Your task to perform on an android device: turn on improve location accuracy Image 0: 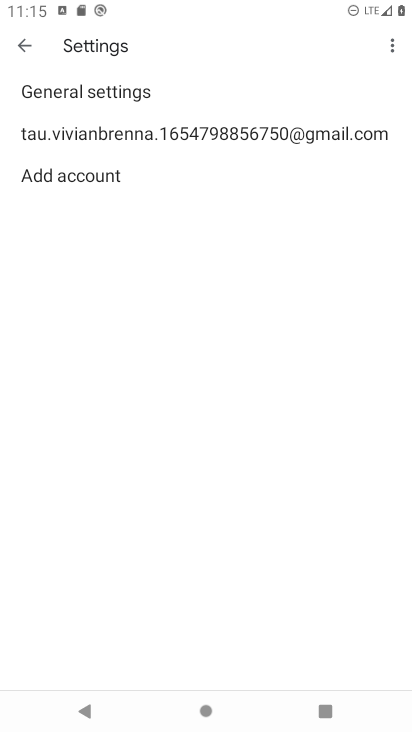
Step 0: press home button
Your task to perform on an android device: turn on improve location accuracy Image 1: 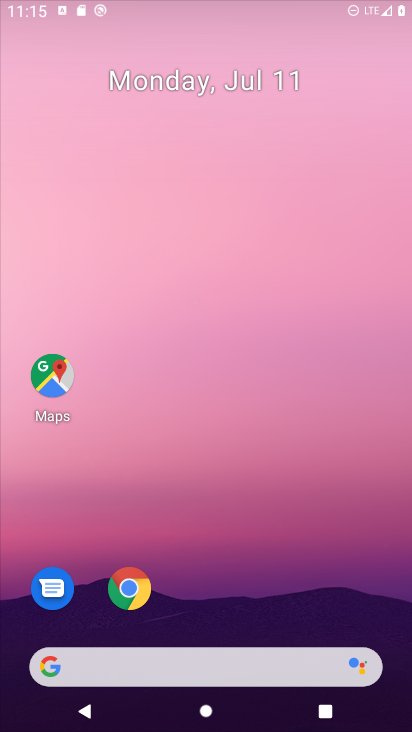
Step 1: drag from (400, 669) to (296, 141)
Your task to perform on an android device: turn on improve location accuracy Image 2: 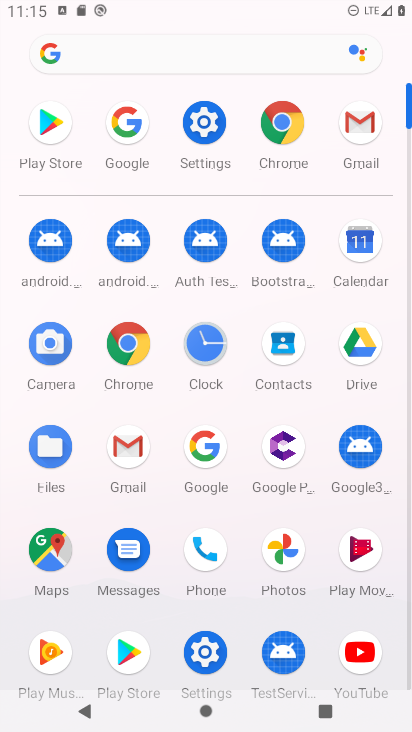
Step 2: click (195, 137)
Your task to perform on an android device: turn on improve location accuracy Image 3: 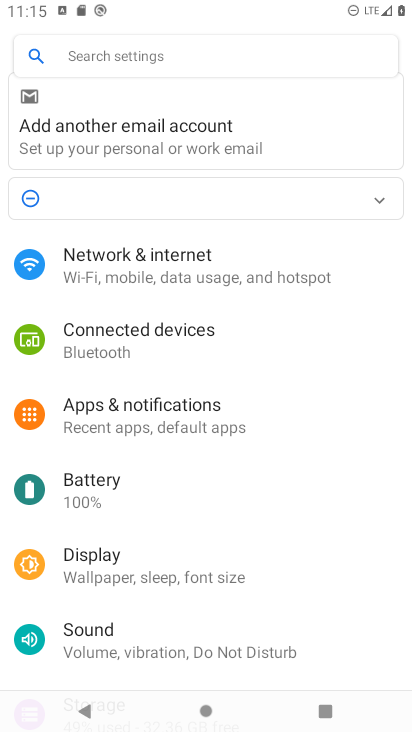
Step 3: drag from (150, 649) to (180, 94)
Your task to perform on an android device: turn on improve location accuracy Image 4: 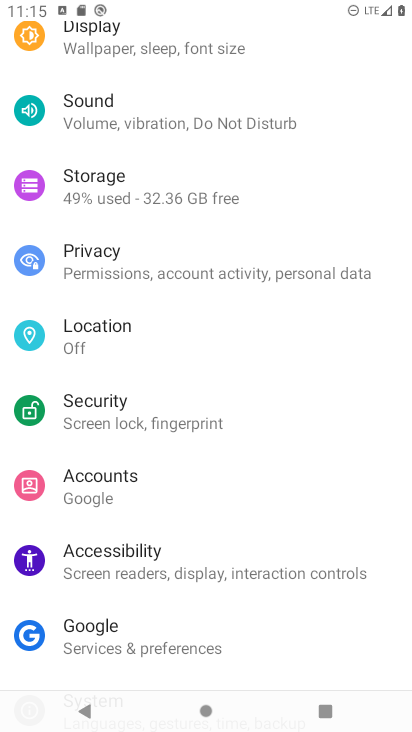
Step 4: click (35, 307)
Your task to perform on an android device: turn on improve location accuracy Image 5: 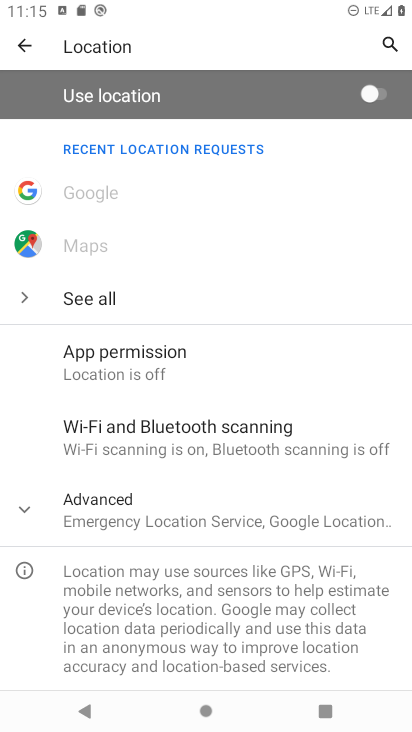
Step 5: click (144, 524)
Your task to perform on an android device: turn on improve location accuracy Image 6: 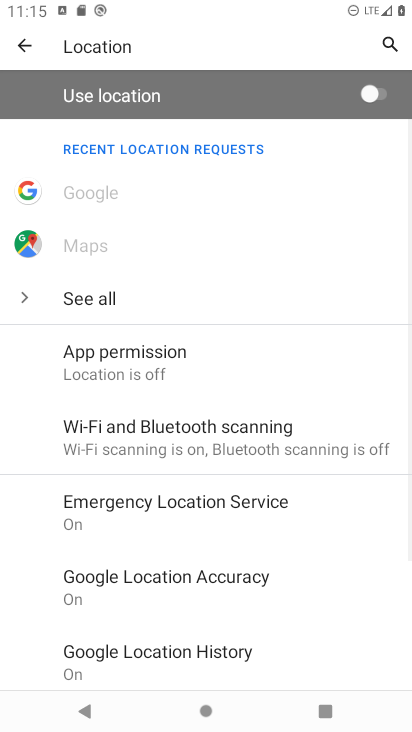
Step 6: click (170, 564)
Your task to perform on an android device: turn on improve location accuracy Image 7: 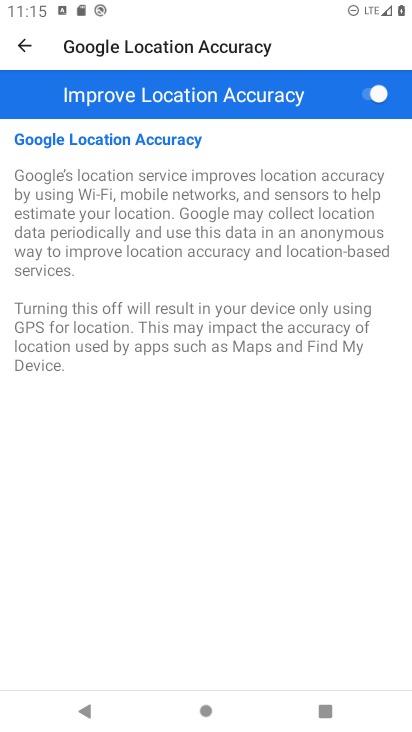
Step 7: task complete